Your task to perform on an android device: turn on data saver in the chrome app Image 0: 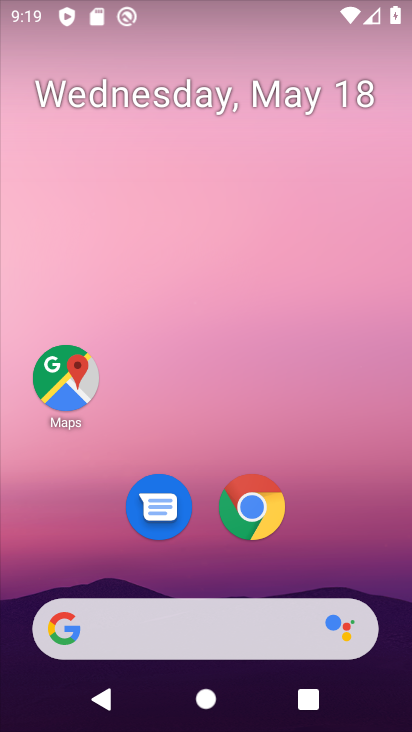
Step 0: click (260, 511)
Your task to perform on an android device: turn on data saver in the chrome app Image 1: 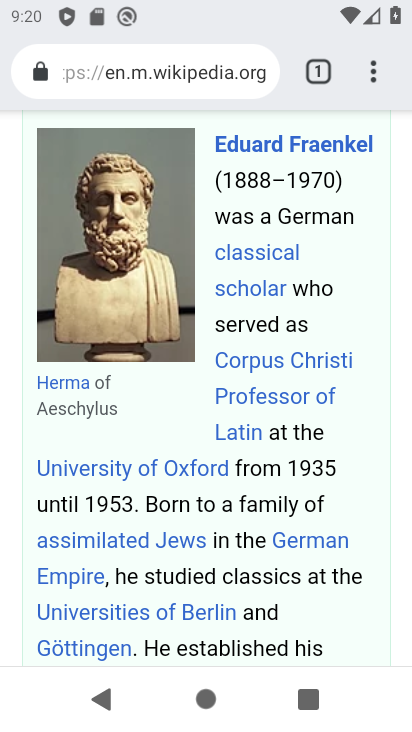
Step 1: drag from (372, 63) to (239, 514)
Your task to perform on an android device: turn on data saver in the chrome app Image 2: 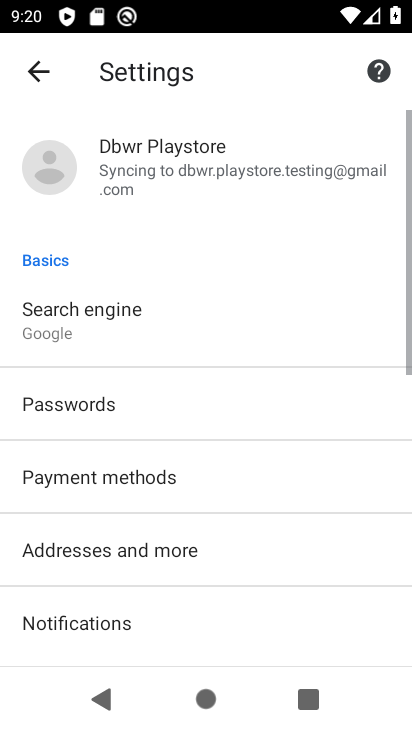
Step 2: drag from (188, 572) to (293, 169)
Your task to perform on an android device: turn on data saver in the chrome app Image 3: 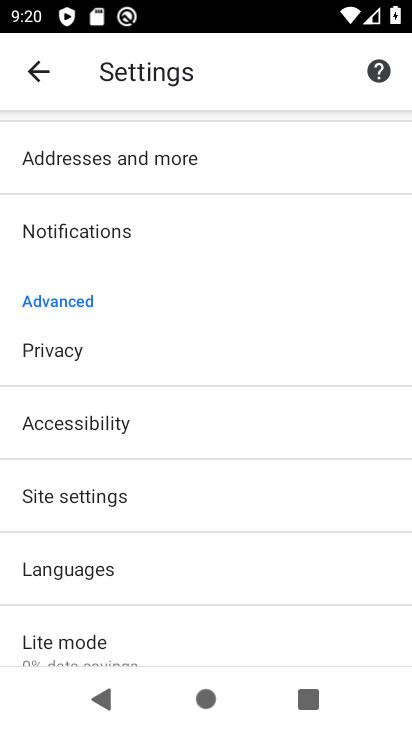
Step 3: click (116, 489)
Your task to perform on an android device: turn on data saver in the chrome app Image 4: 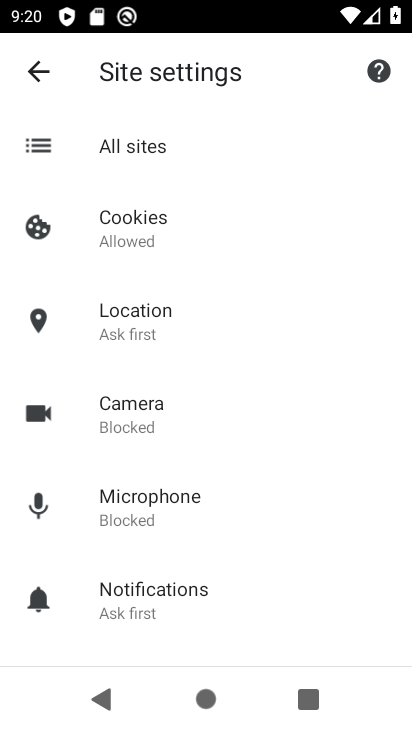
Step 4: click (49, 90)
Your task to perform on an android device: turn on data saver in the chrome app Image 5: 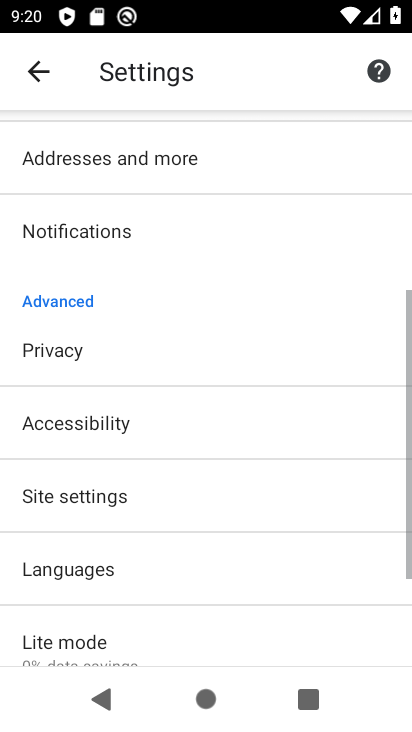
Step 5: drag from (195, 616) to (297, 201)
Your task to perform on an android device: turn on data saver in the chrome app Image 6: 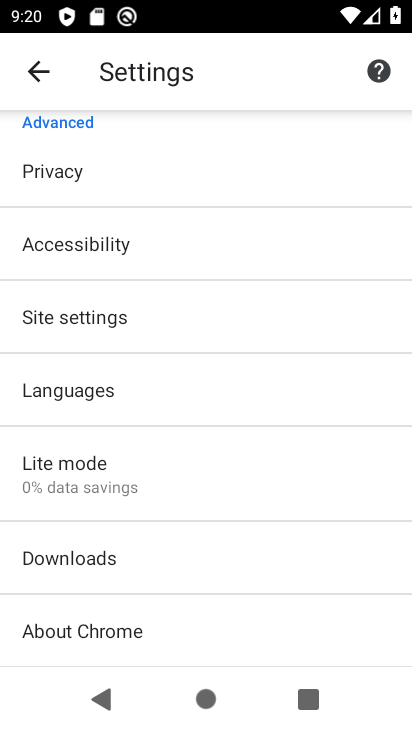
Step 6: click (139, 476)
Your task to perform on an android device: turn on data saver in the chrome app Image 7: 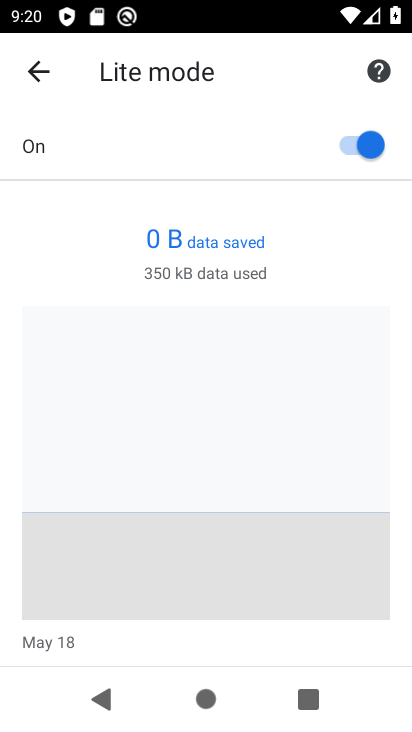
Step 7: task complete